Your task to perform on an android device: move an email to a new category in the gmail app Image 0: 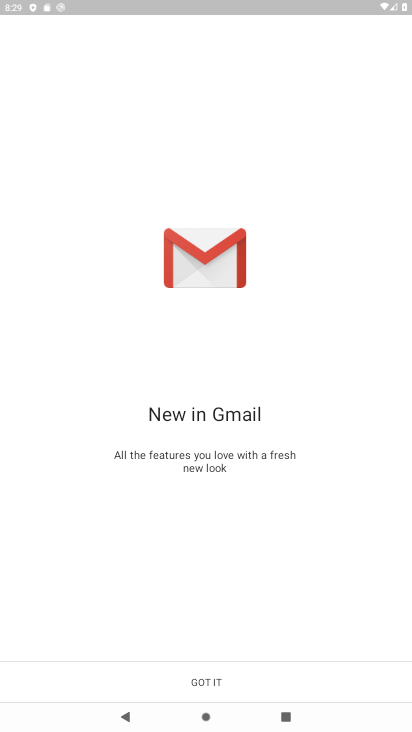
Step 0: click (283, 688)
Your task to perform on an android device: move an email to a new category in the gmail app Image 1: 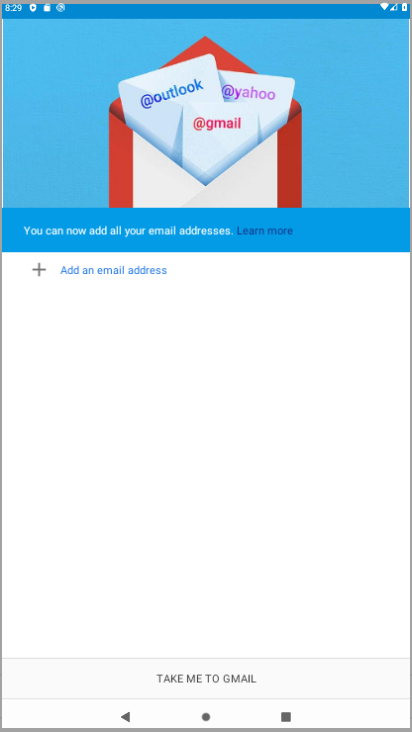
Step 1: click (233, 681)
Your task to perform on an android device: move an email to a new category in the gmail app Image 2: 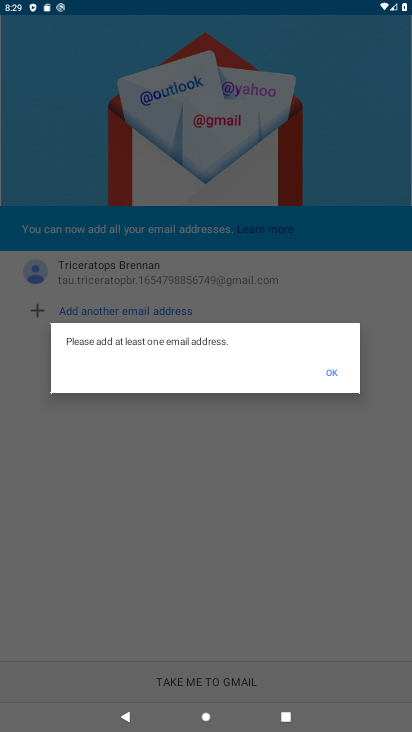
Step 2: click (336, 378)
Your task to perform on an android device: move an email to a new category in the gmail app Image 3: 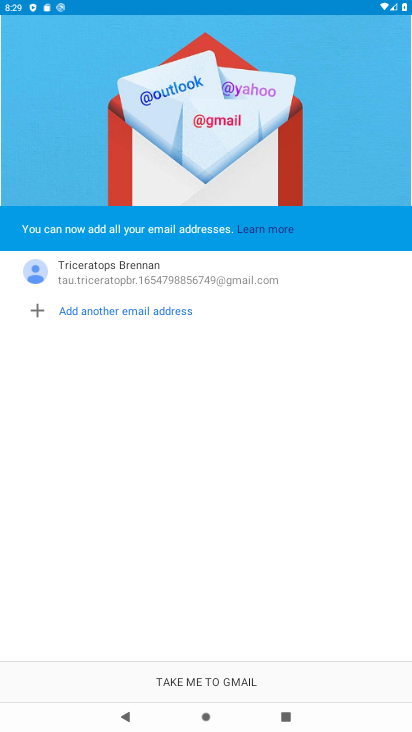
Step 3: click (179, 681)
Your task to perform on an android device: move an email to a new category in the gmail app Image 4: 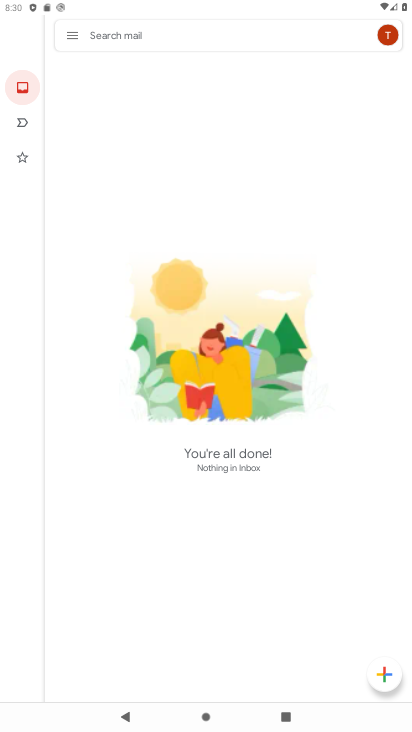
Step 4: click (71, 30)
Your task to perform on an android device: move an email to a new category in the gmail app Image 5: 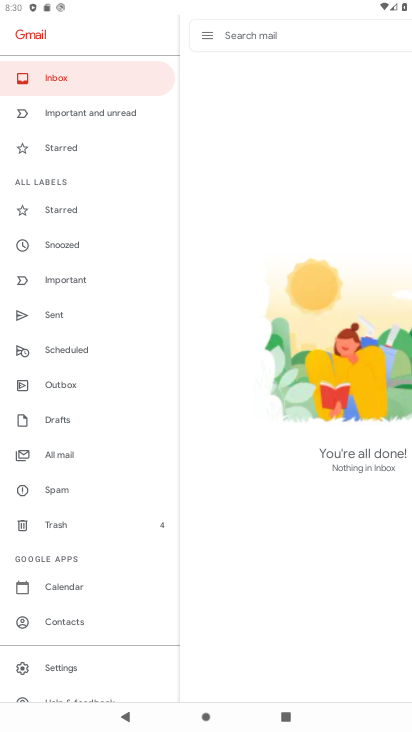
Step 5: click (49, 457)
Your task to perform on an android device: move an email to a new category in the gmail app Image 6: 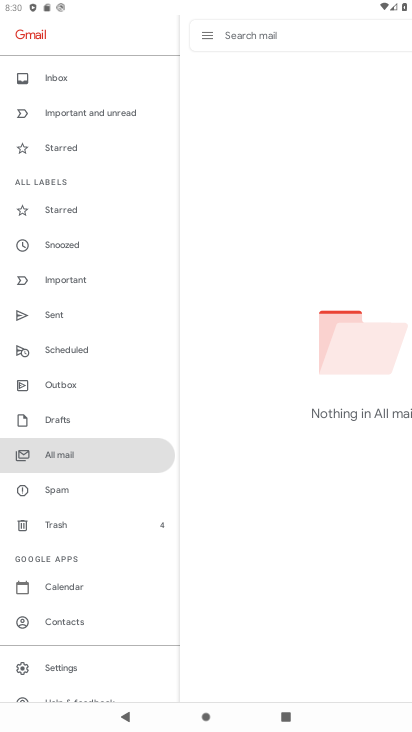
Step 6: task complete